Your task to perform on an android device: turn on sleep mode Image 0: 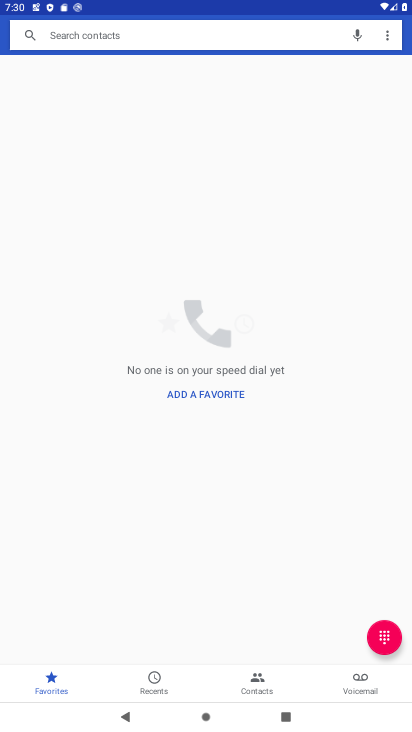
Step 0: press home button
Your task to perform on an android device: turn on sleep mode Image 1: 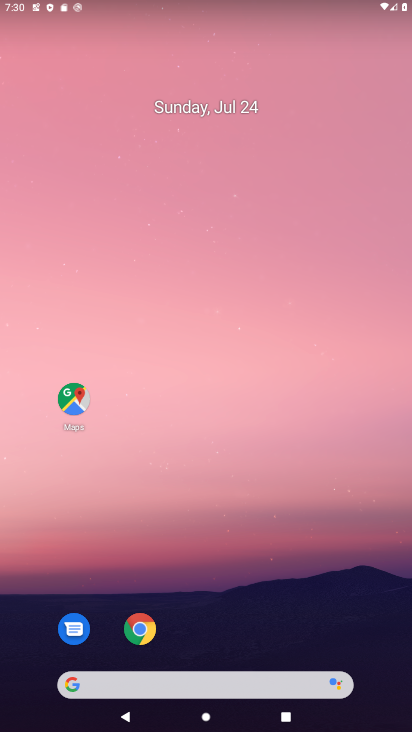
Step 1: drag from (357, 637) to (375, 13)
Your task to perform on an android device: turn on sleep mode Image 2: 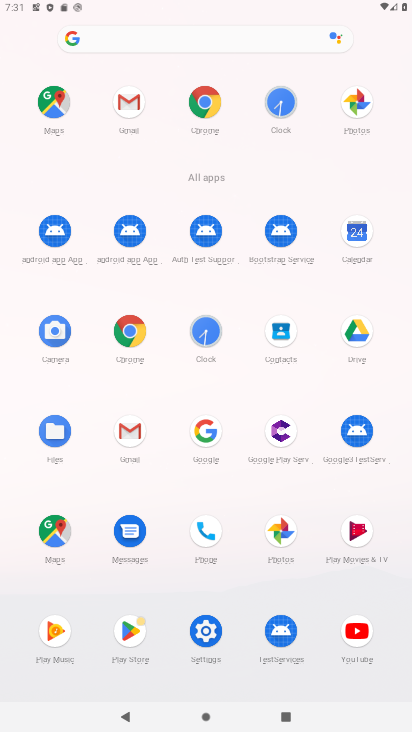
Step 2: click (206, 634)
Your task to perform on an android device: turn on sleep mode Image 3: 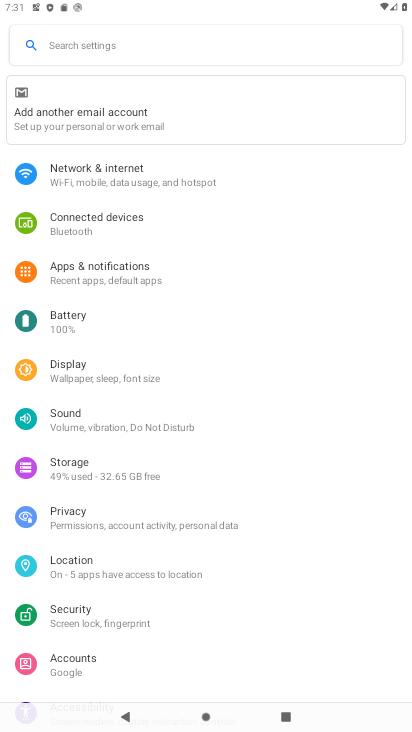
Step 3: click (171, 371)
Your task to perform on an android device: turn on sleep mode Image 4: 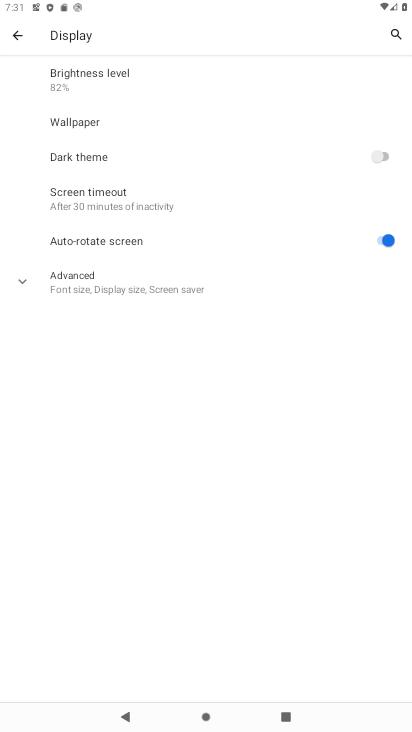
Step 4: click (163, 287)
Your task to perform on an android device: turn on sleep mode Image 5: 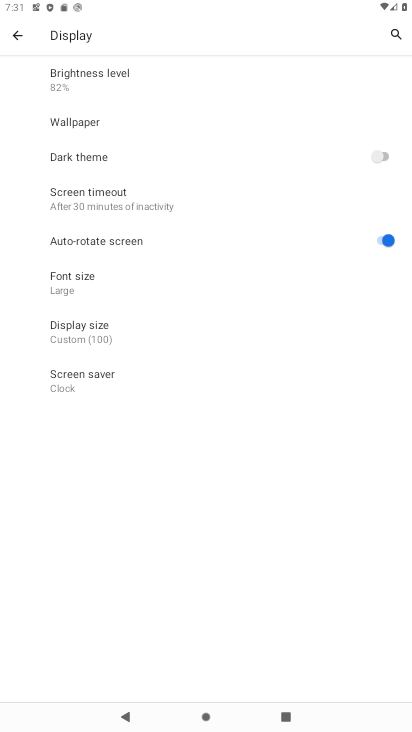
Step 5: task complete